Your task to perform on an android device: When is my next meeting? Image 0: 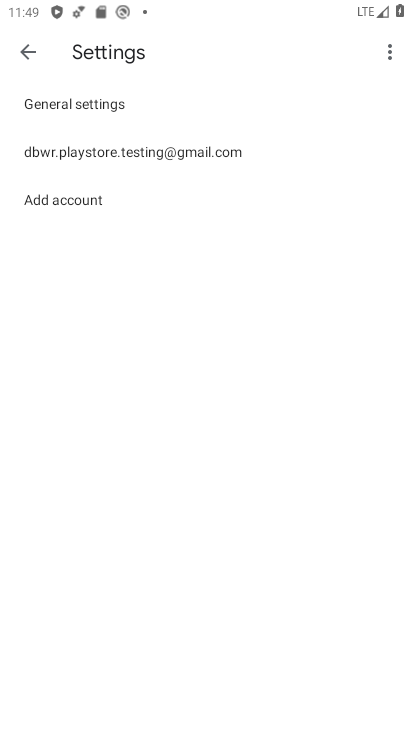
Step 0: press home button
Your task to perform on an android device: When is my next meeting? Image 1: 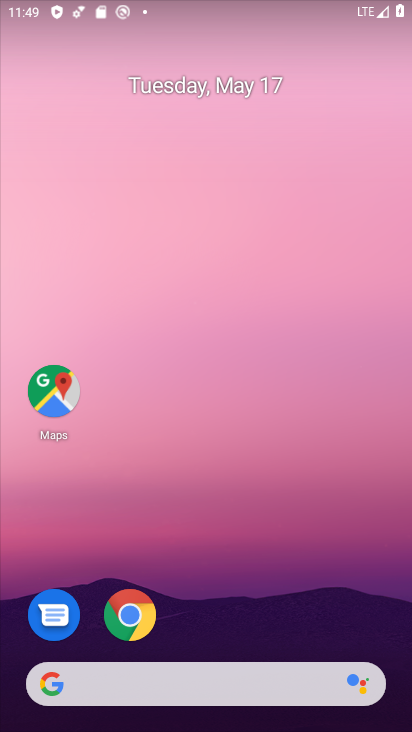
Step 1: drag from (178, 646) to (150, 231)
Your task to perform on an android device: When is my next meeting? Image 2: 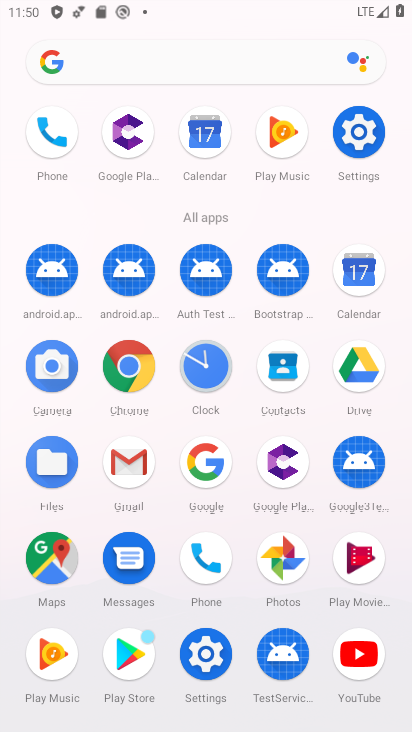
Step 2: click (338, 285)
Your task to perform on an android device: When is my next meeting? Image 3: 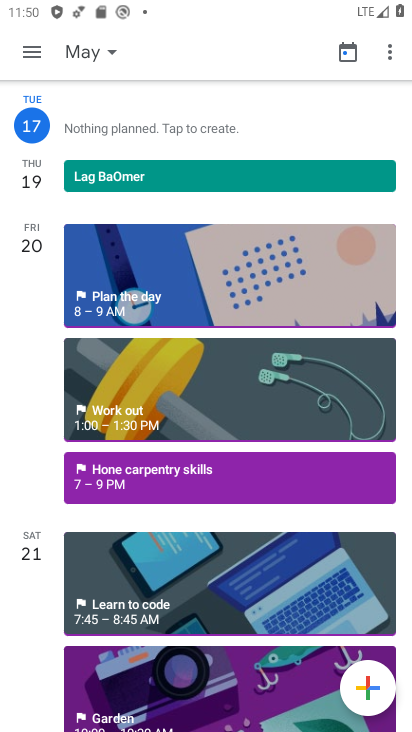
Step 3: task complete